Your task to perform on an android device: Show me popular videos on Youtube Image 0: 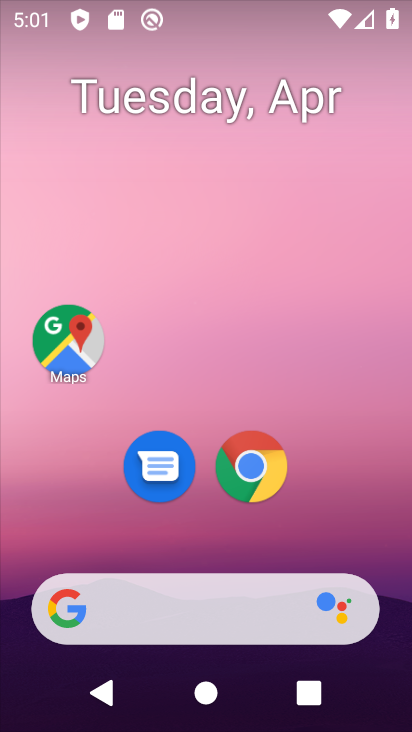
Step 0: drag from (191, 546) to (238, 47)
Your task to perform on an android device: Show me popular videos on Youtube Image 1: 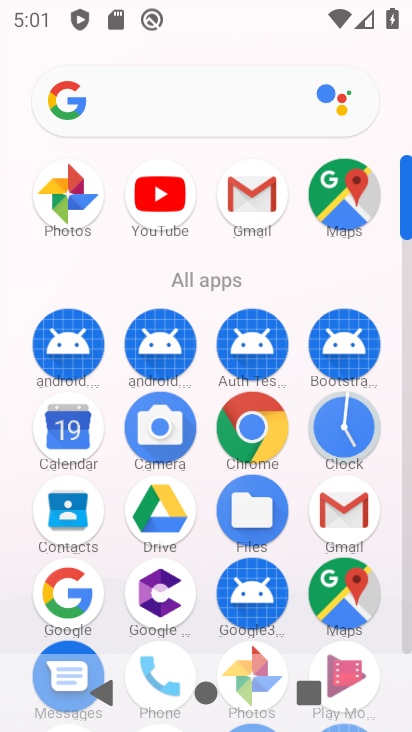
Step 1: click (168, 190)
Your task to perform on an android device: Show me popular videos on Youtube Image 2: 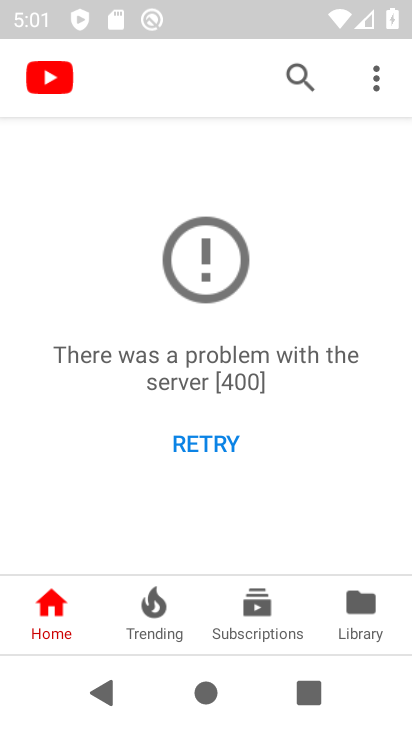
Step 2: click (146, 598)
Your task to perform on an android device: Show me popular videos on Youtube Image 3: 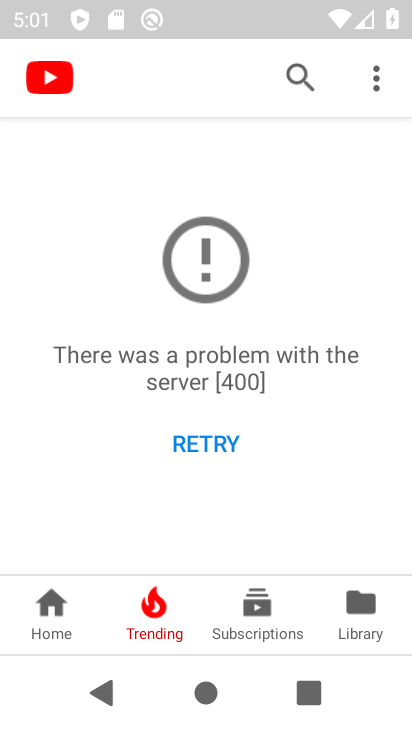
Step 3: task complete